Your task to perform on an android device: change your default location settings in chrome Image 0: 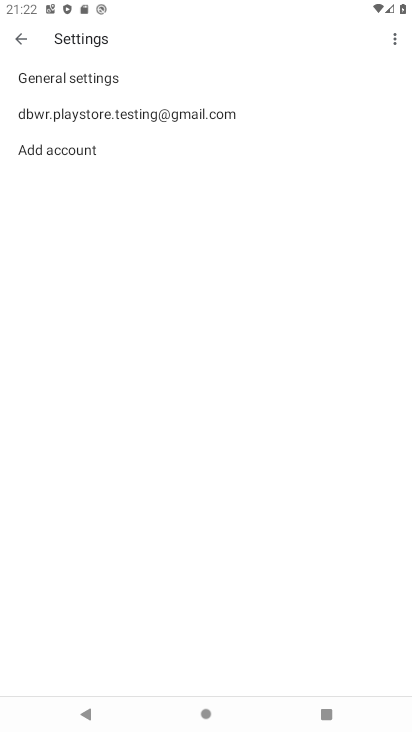
Step 0: press home button
Your task to perform on an android device: change your default location settings in chrome Image 1: 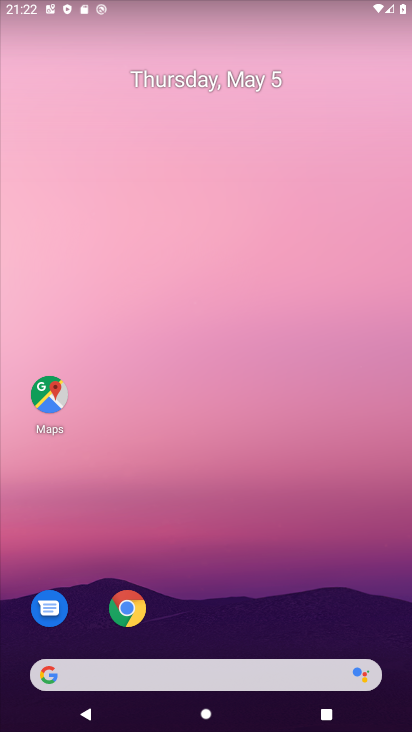
Step 1: drag from (324, 628) to (342, 4)
Your task to perform on an android device: change your default location settings in chrome Image 2: 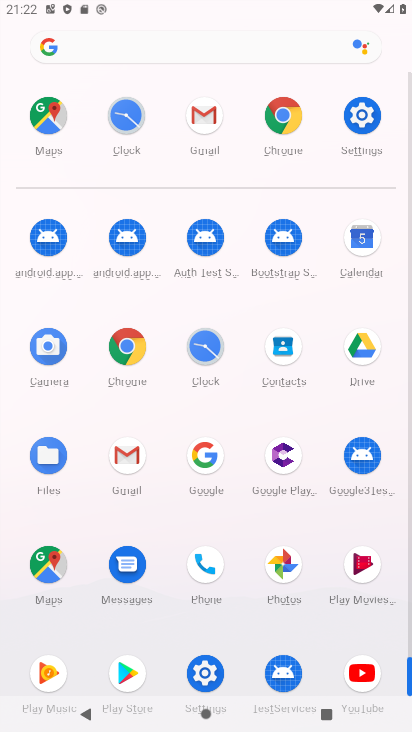
Step 2: click (140, 342)
Your task to perform on an android device: change your default location settings in chrome Image 3: 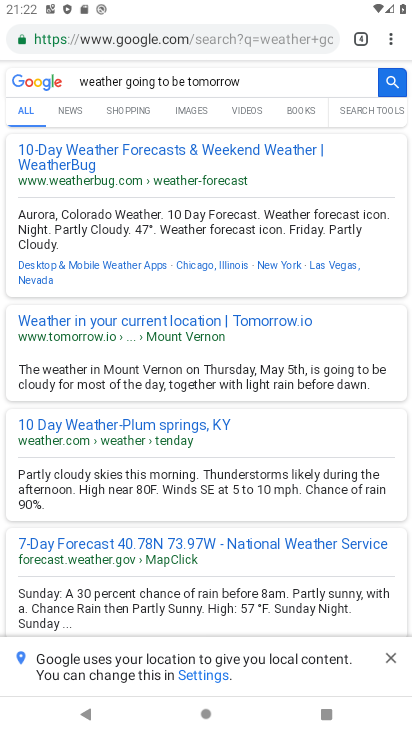
Step 3: click (392, 35)
Your task to perform on an android device: change your default location settings in chrome Image 4: 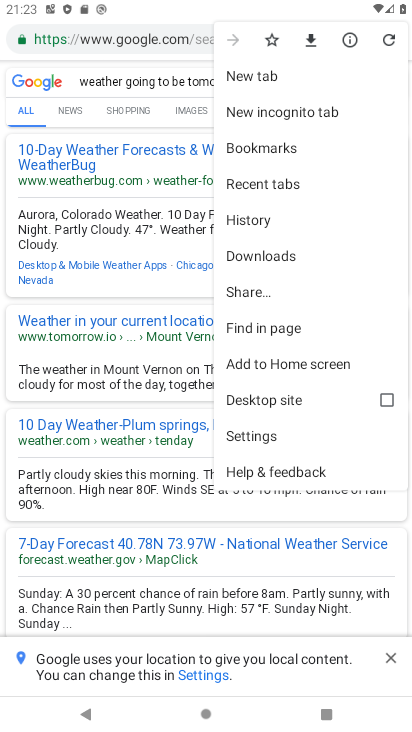
Step 4: click (282, 439)
Your task to perform on an android device: change your default location settings in chrome Image 5: 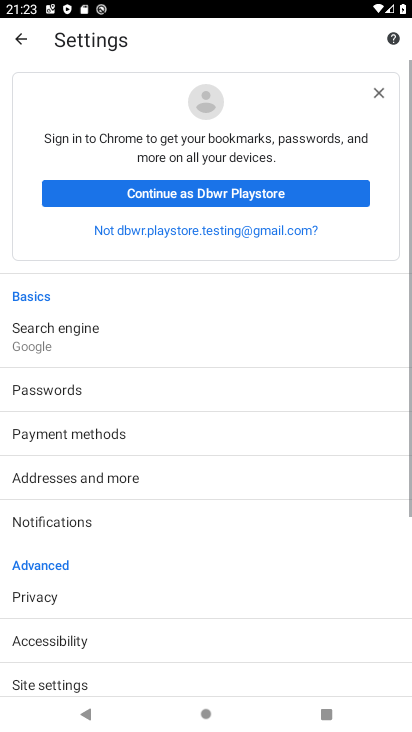
Step 5: drag from (259, 574) to (197, 179)
Your task to perform on an android device: change your default location settings in chrome Image 6: 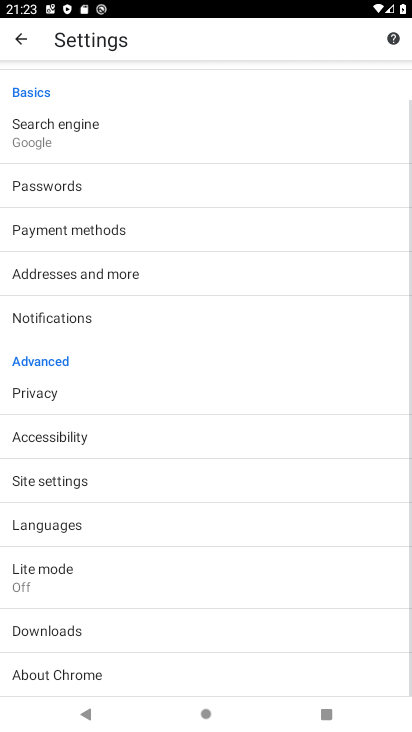
Step 6: click (111, 479)
Your task to perform on an android device: change your default location settings in chrome Image 7: 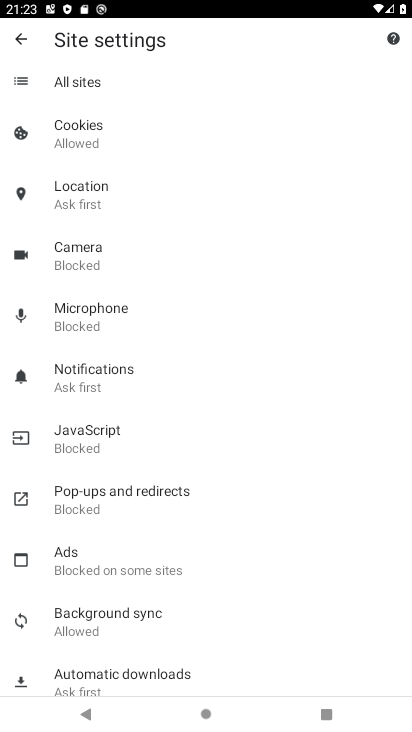
Step 7: click (104, 172)
Your task to perform on an android device: change your default location settings in chrome Image 8: 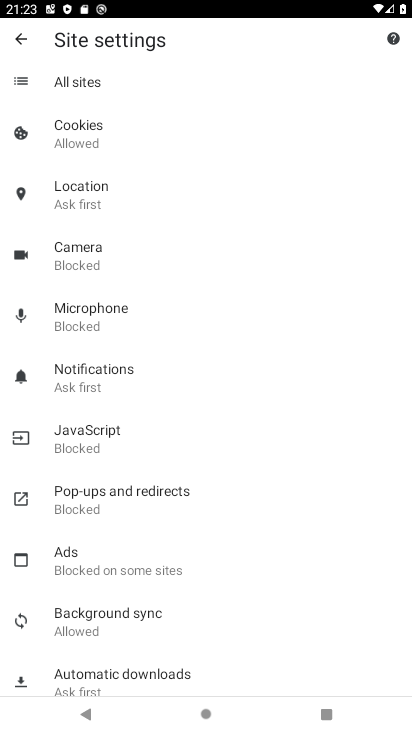
Step 8: click (103, 192)
Your task to perform on an android device: change your default location settings in chrome Image 9: 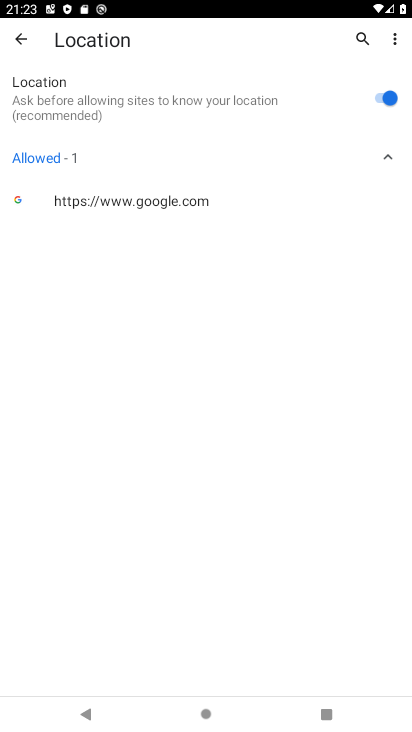
Step 9: click (202, 206)
Your task to perform on an android device: change your default location settings in chrome Image 10: 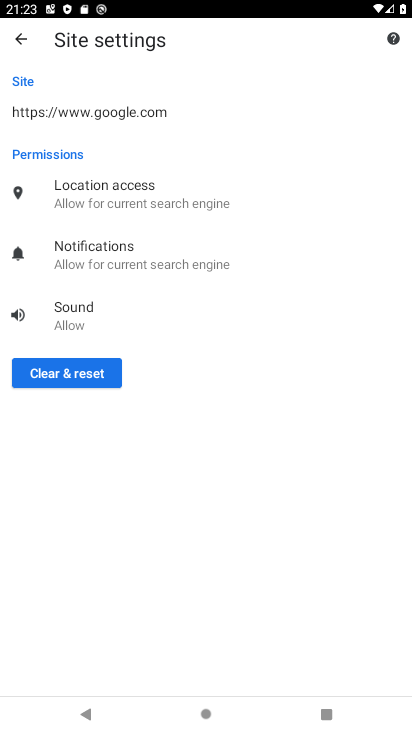
Step 10: click (246, 201)
Your task to perform on an android device: change your default location settings in chrome Image 11: 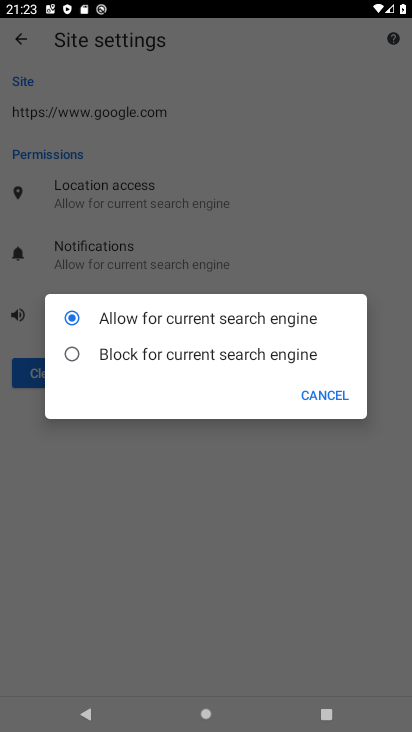
Step 11: click (320, 390)
Your task to perform on an android device: change your default location settings in chrome Image 12: 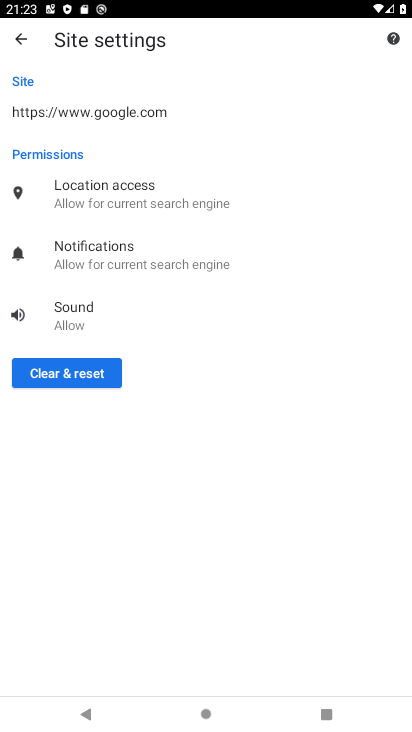
Step 12: click (127, 194)
Your task to perform on an android device: change your default location settings in chrome Image 13: 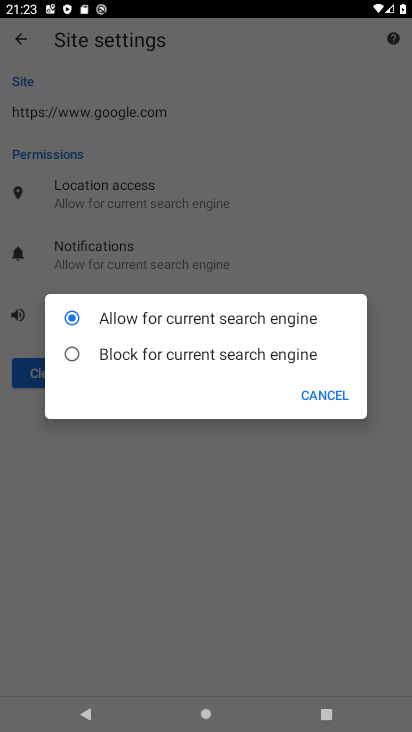
Step 13: click (156, 358)
Your task to perform on an android device: change your default location settings in chrome Image 14: 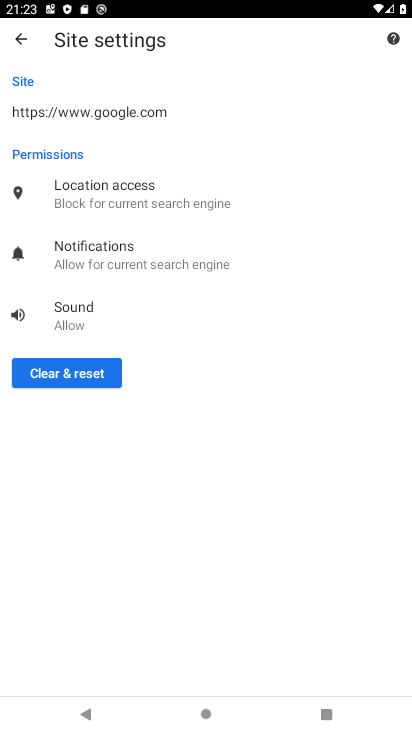
Step 14: task complete